Your task to perform on an android device: Show me popular games on the Play Store Image 0: 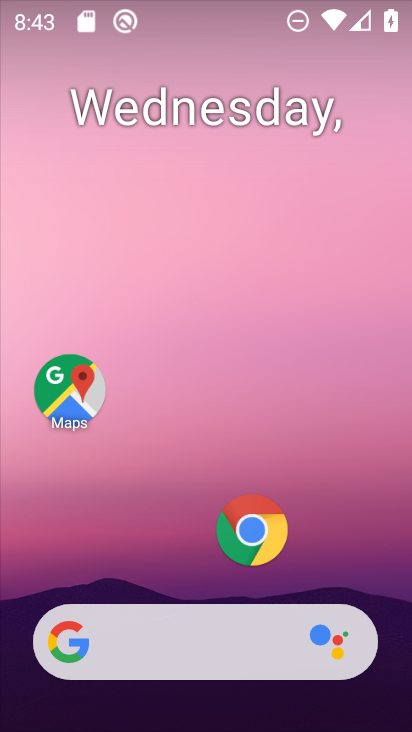
Step 0: drag from (177, 509) to (243, 68)
Your task to perform on an android device: Show me popular games on the Play Store Image 1: 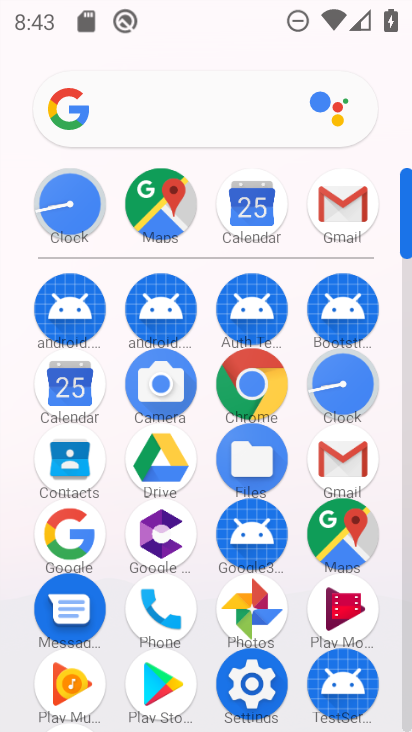
Step 1: click (159, 688)
Your task to perform on an android device: Show me popular games on the Play Store Image 2: 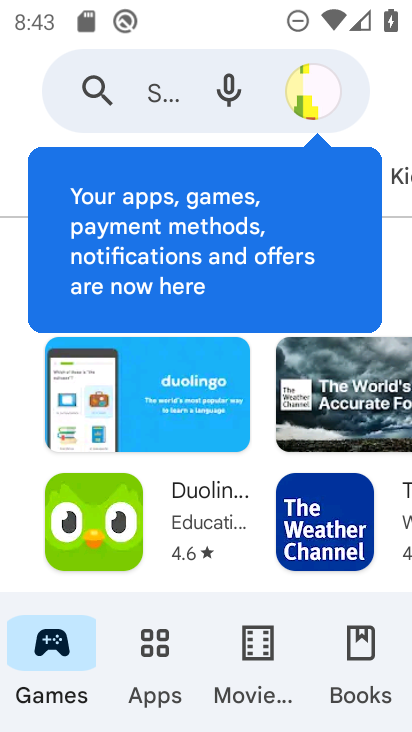
Step 2: drag from (229, 552) to (295, 97)
Your task to perform on an android device: Show me popular games on the Play Store Image 3: 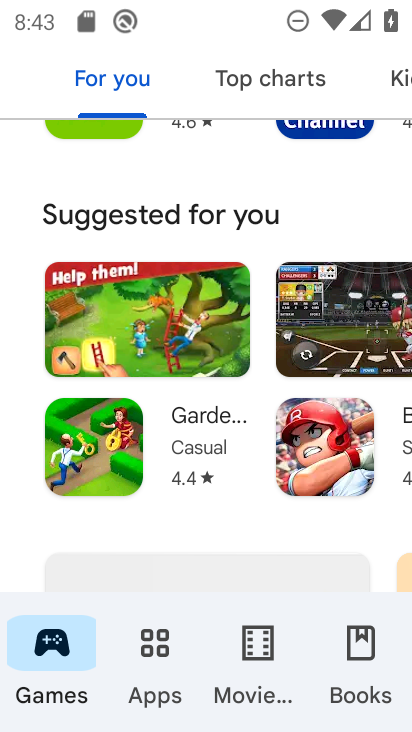
Step 3: drag from (222, 565) to (282, 119)
Your task to perform on an android device: Show me popular games on the Play Store Image 4: 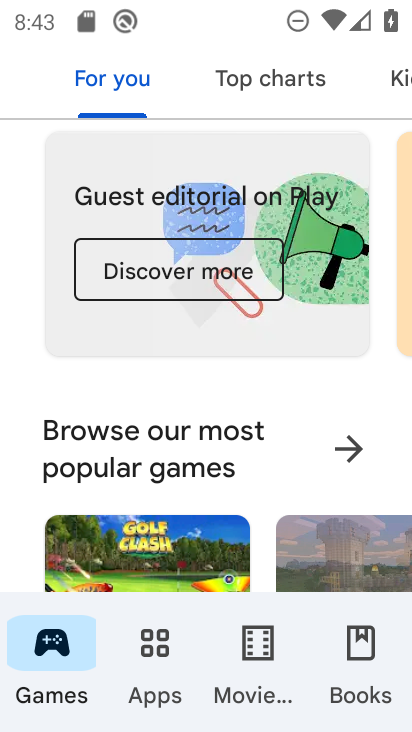
Step 4: drag from (211, 539) to (227, 420)
Your task to perform on an android device: Show me popular games on the Play Store Image 5: 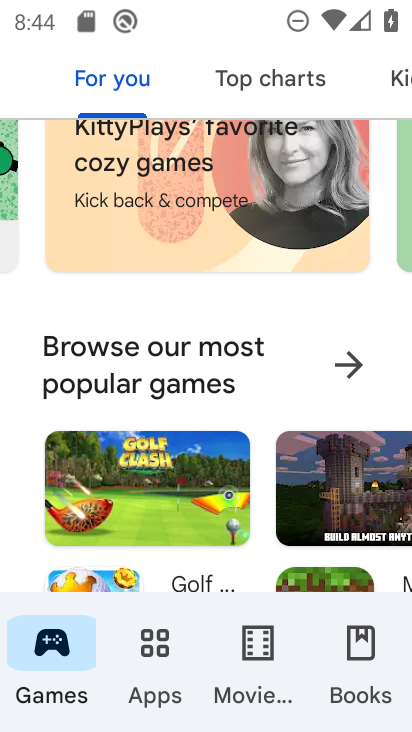
Step 5: click (352, 362)
Your task to perform on an android device: Show me popular games on the Play Store Image 6: 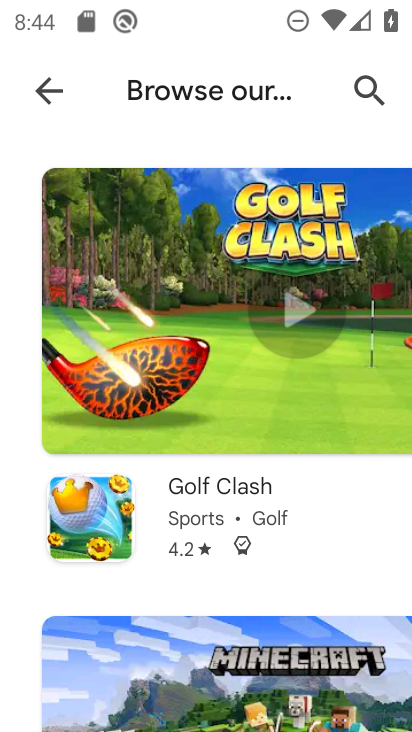
Step 6: task complete